Your task to perform on an android device: Go to eBay Image 0: 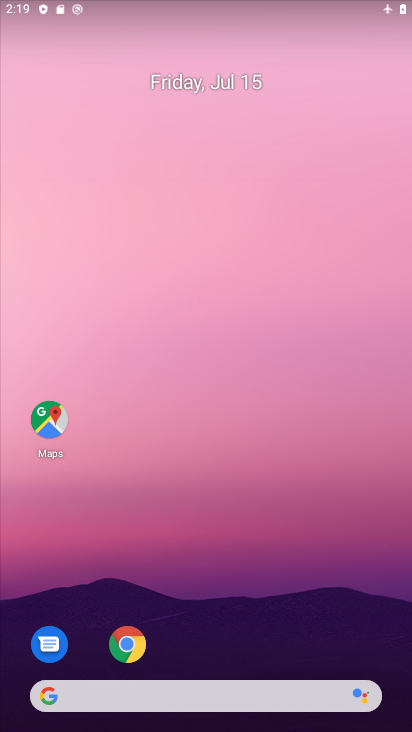
Step 0: drag from (248, 689) to (220, 42)
Your task to perform on an android device: Go to eBay Image 1: 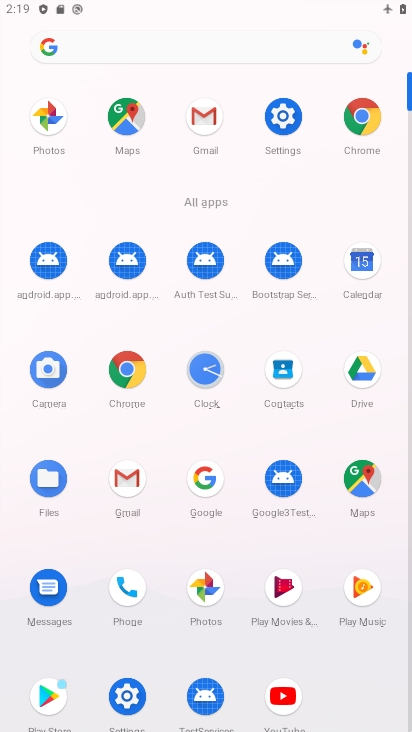
Step 1: click (129, 357)
Your task to perform on an android device: Go to eBay Image 2: 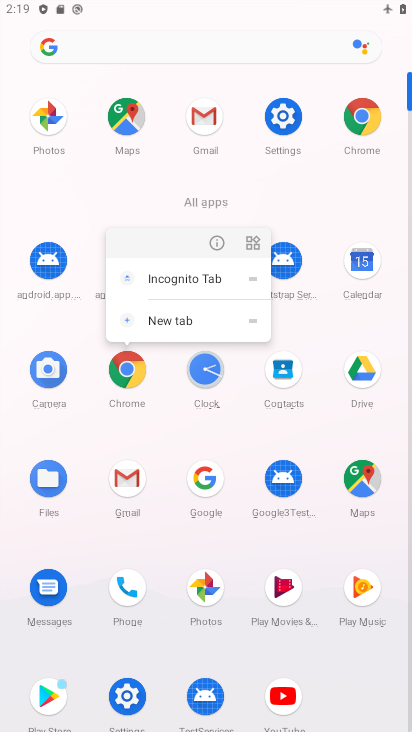
Step 2: click (139, 373)
Your task to perform on an android device: Go to eBay Image 3: 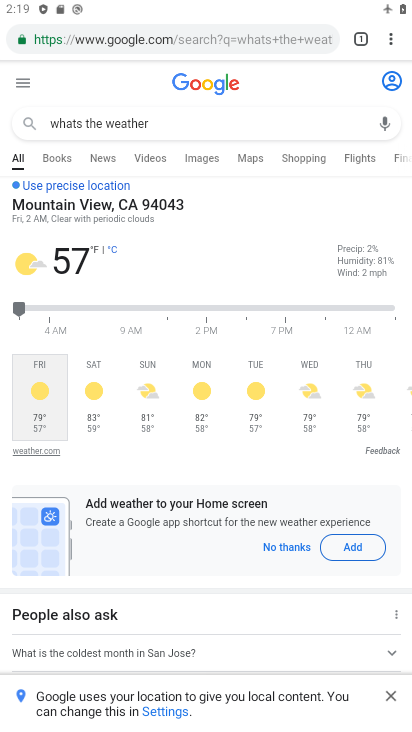
Step 3: drag from (390, 38) to (248, 87)
Your task to perform on an android device: Go to eBay Image 4: 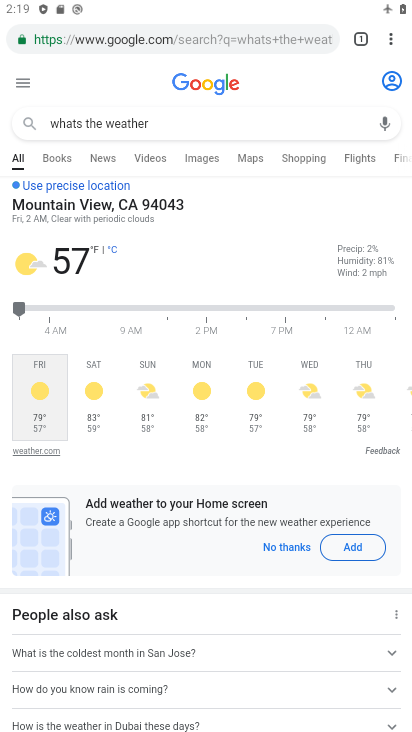
Step 4: click (388, 37)
Your task to perform on an android device: Go to eBay Image 5: 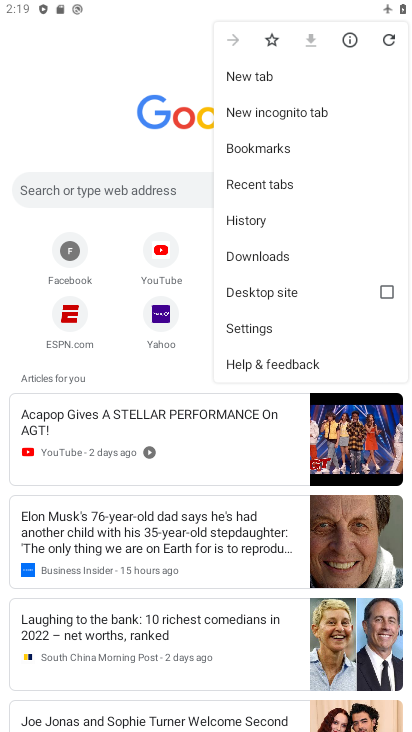
Step 5: click (132, 129)
Your task to perform on an android device: Go to eBay Image 6: 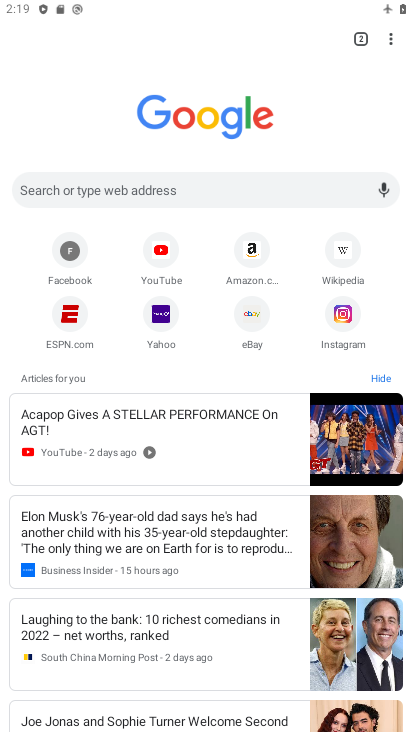
Step 6: click (254, 306)
Your task to perform on an android device: Go to eBay Image 7: 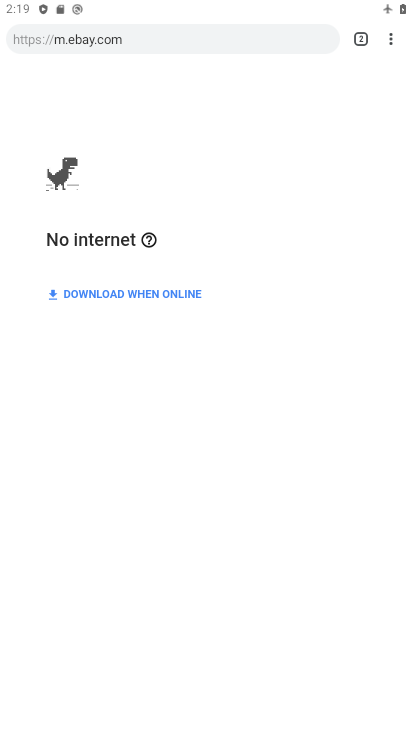
Step 7: task complete